Your task to perform on an android device: Add logitech g933 to the cart on newegg.com Image 0: 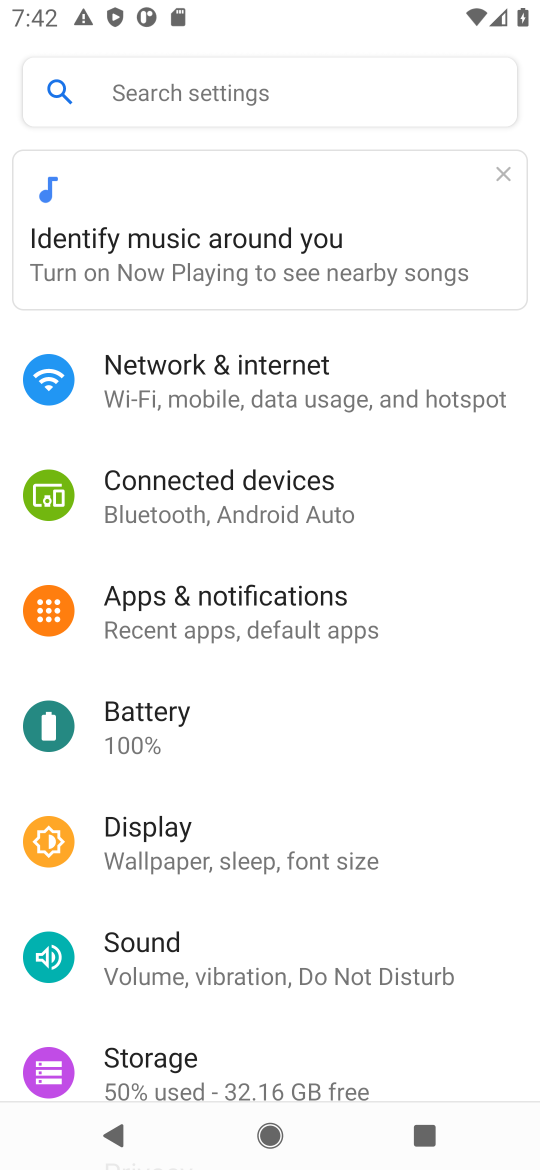
Step 0: press home button
Your task to perform on an android device: Add logitech g933 to the cart on newegg.com Image 1: 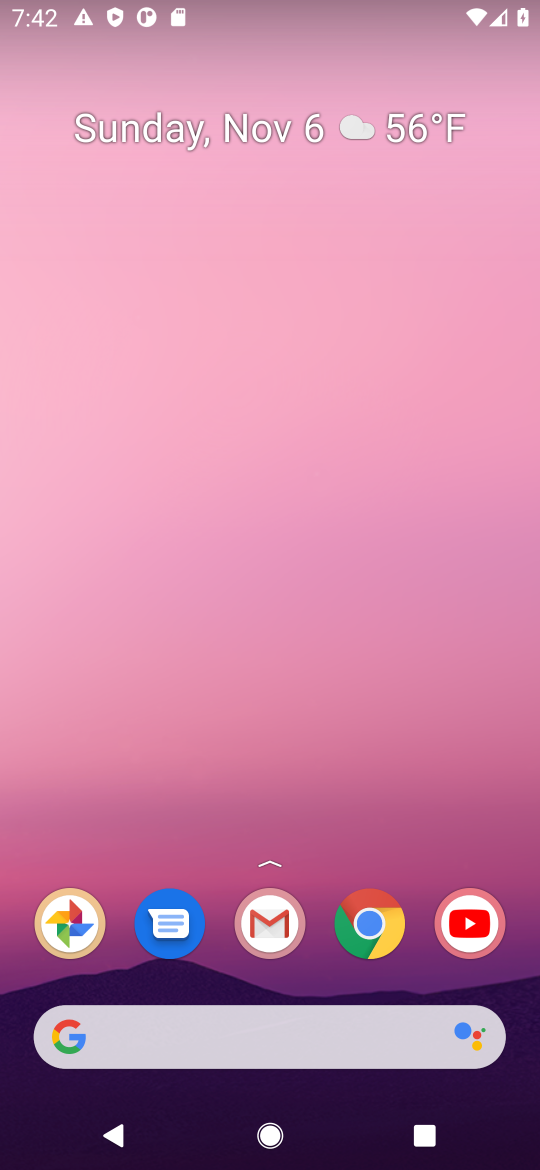
Step 1: click (372, 922)
Your task to perform on an android device: Add logitech g933 to the cart on newegg.com Image 2: 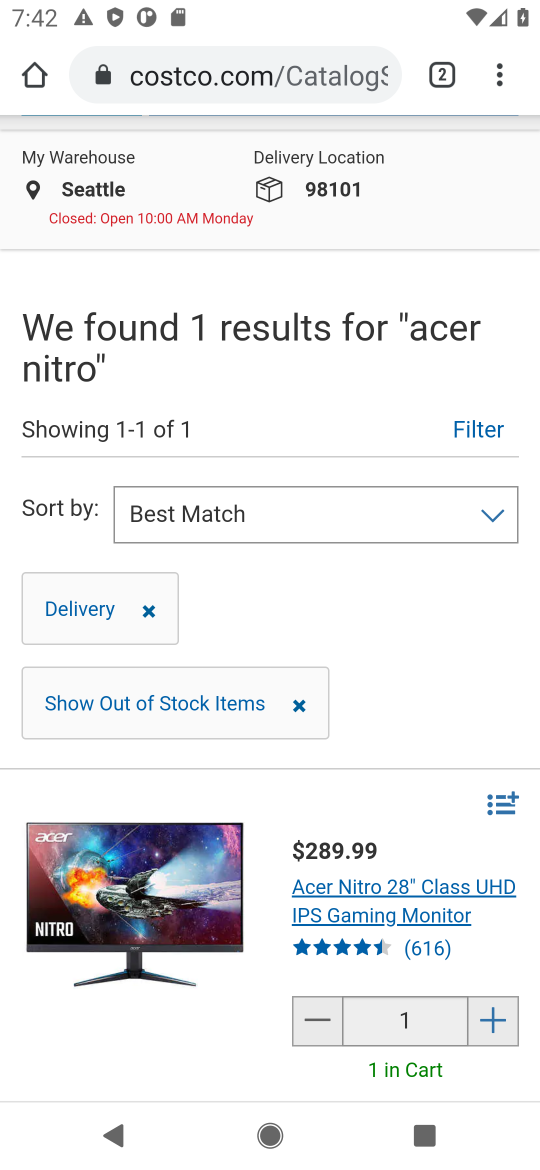
Step 2: click (205, 74)
Your task to perform on an android device: Add logitech g933 to the cart on newegg.com Image 3: 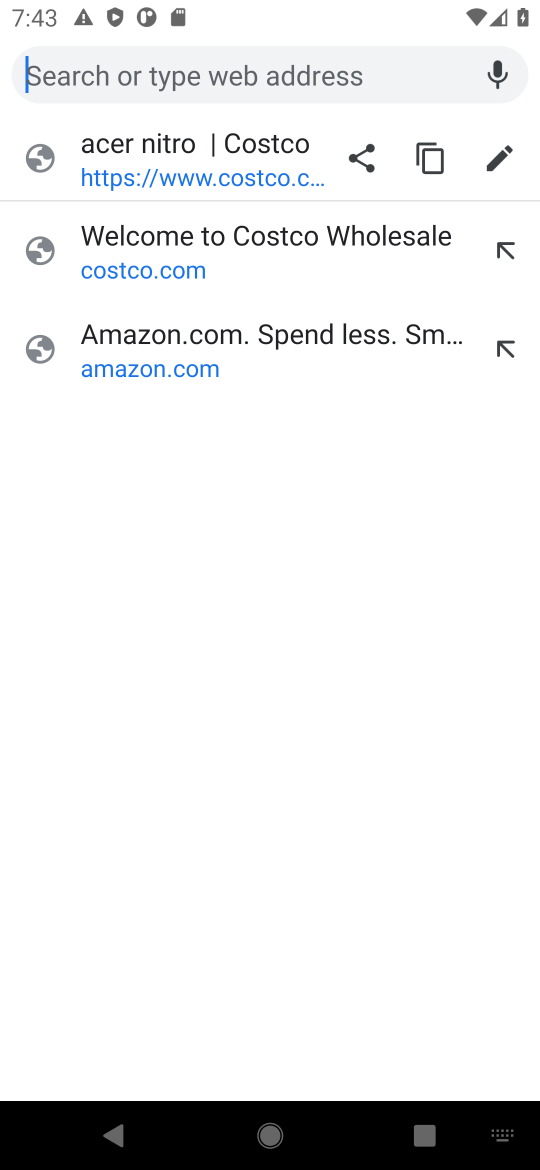
Step 3: type "newegg.com"
Your task to perform on an android device: Add logitech g933 to the cart on newegg.com Image 4: 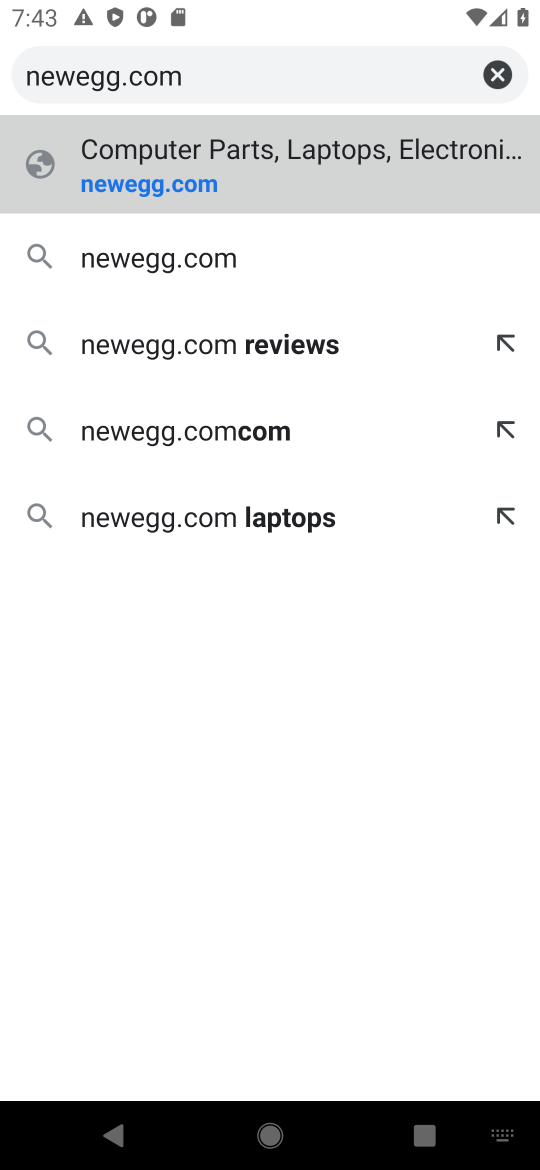
Step 4: click (162, 192)
Your task to perform on an android device: Add logitech g933 to the cart on newegg.com Image 5: 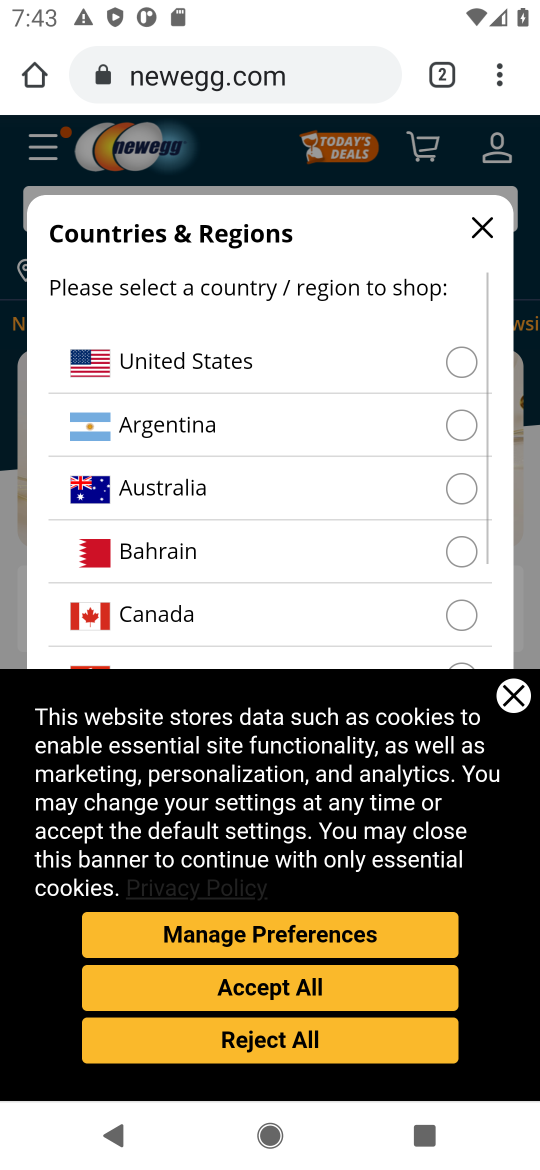
Step 5: click (442, 366)
Your task to perform on an android device: Add logitech g933 to the cart on newegg.com Image 6: 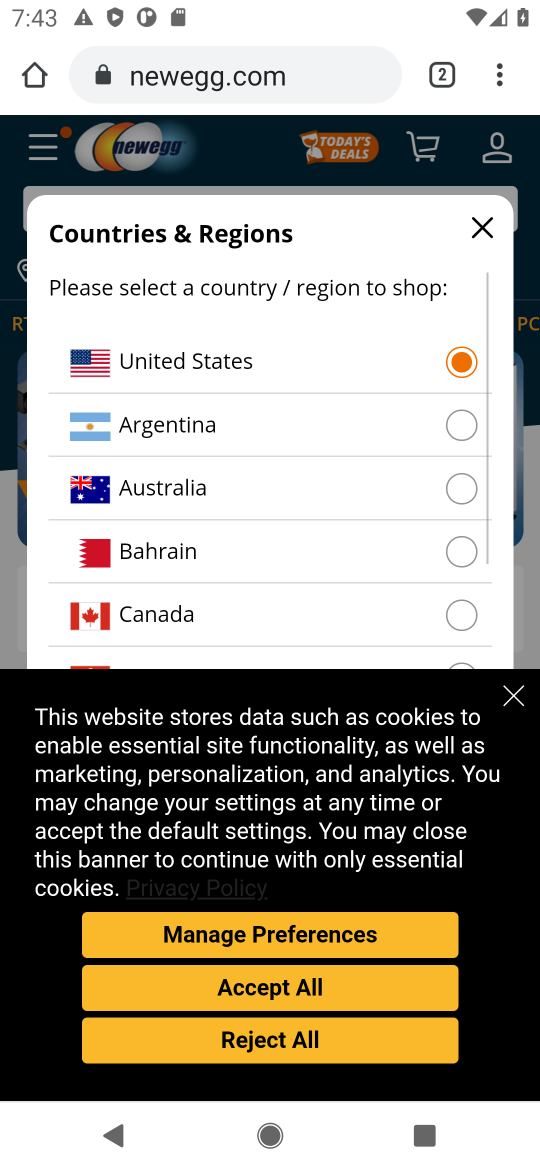
Step 6: click (479, 233)
Your task to perform on an android device: Add logitech g933 to the cart on newegg.com Image 7: 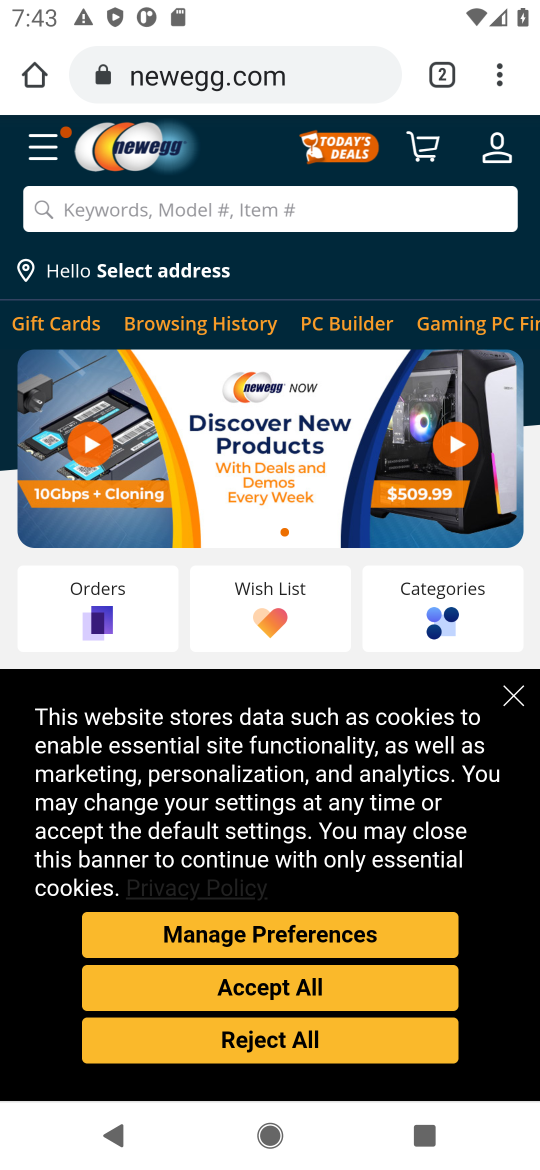
Step 7: click (151, 208)
Your task to perform on an android device: Add logitech g933 to the cart on newegg.com Image 8: 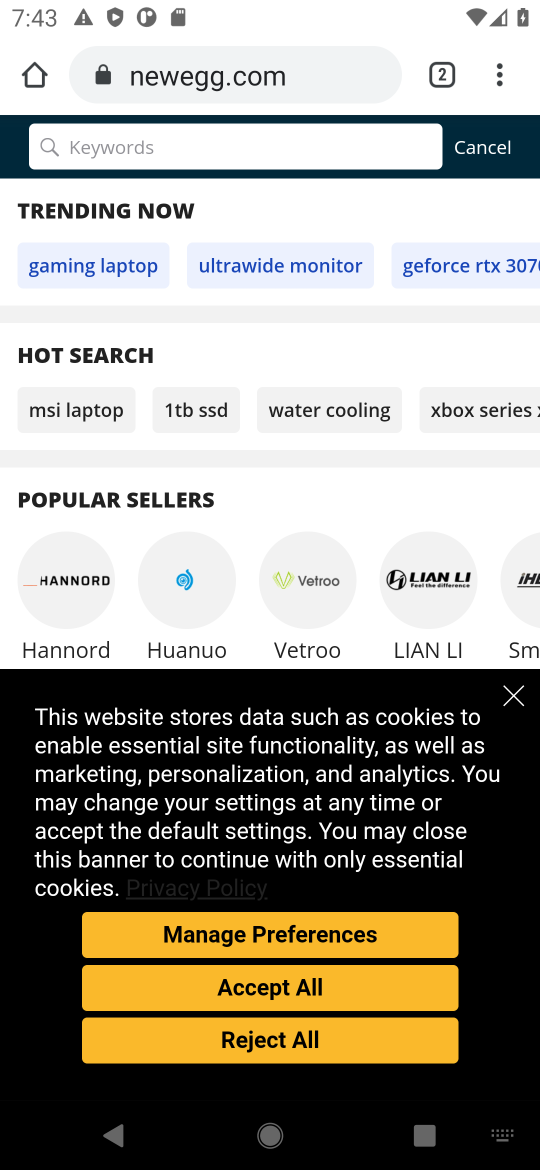
Step 8: type "logitech g933 "
Your task to perform on an android device: Add logitech g933 to the cart on newegg.com Image 9: 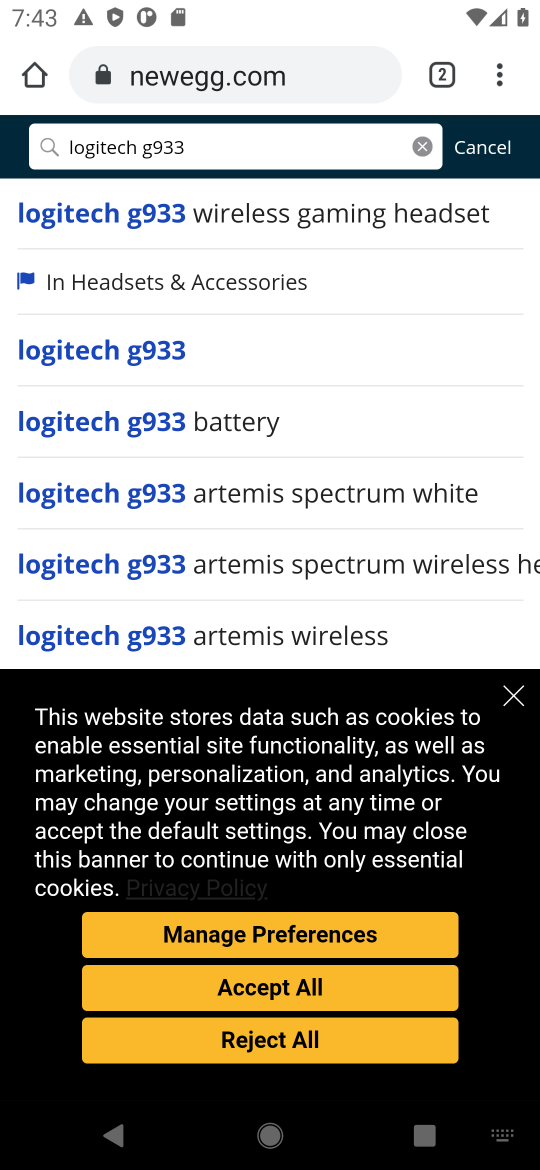
Step 9: click (143, 363)
Your task to perform on an android device: Add logitech g933 to the cart on newegg.com Image 10: 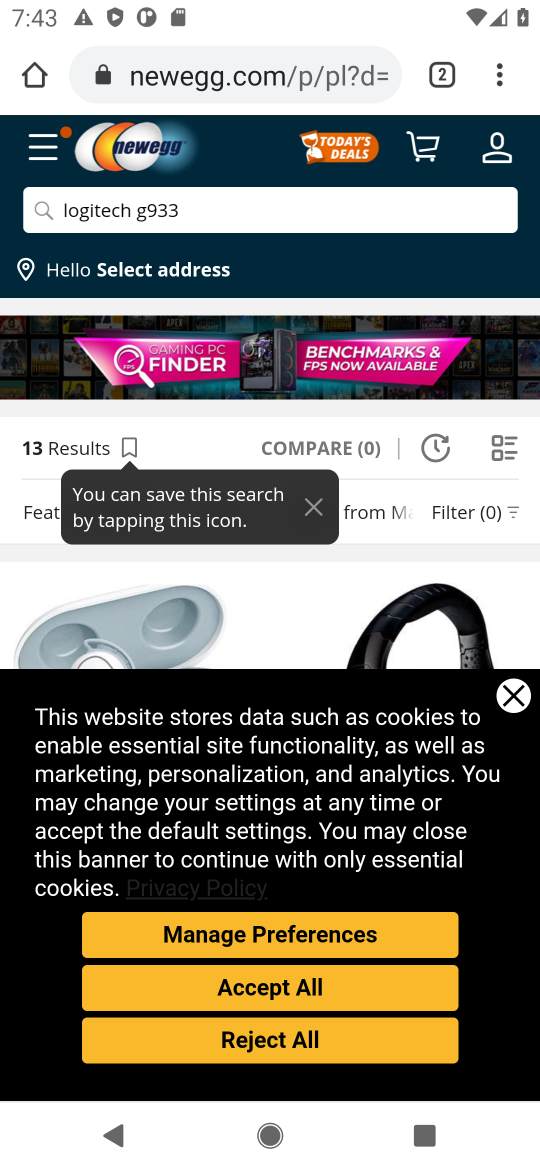
Step 10: click (515, 695)
Your task to perform on an android device: Add logitech g933 to the cart on newegg.com Image 11: 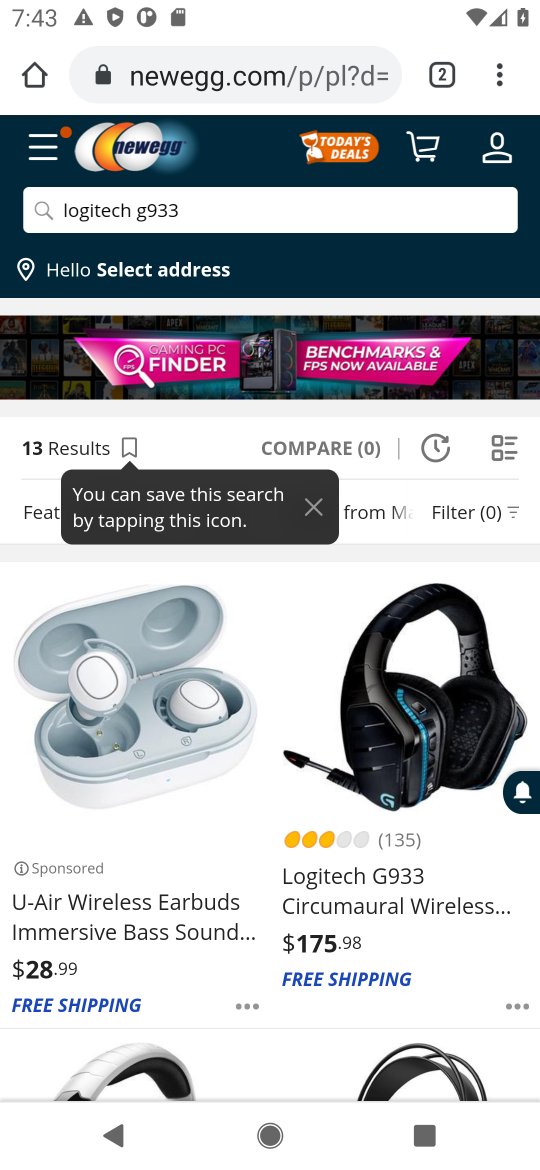
Step 11: click (423, 769)
Your task to perform on an android device: Add logitech g933 to the cart on newegg.com Image 12: 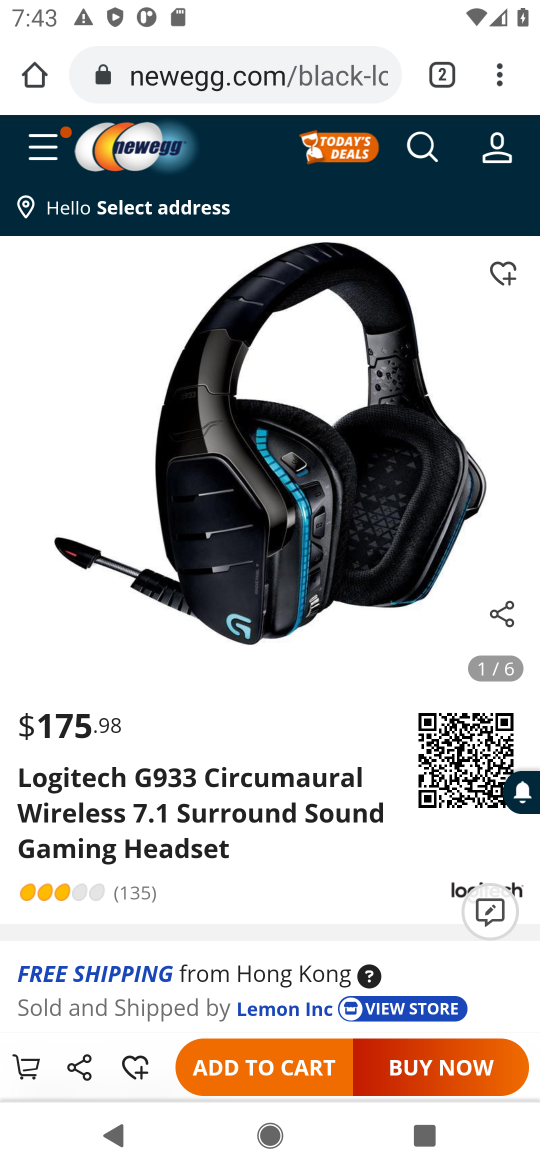
Step 12: click (268, 1074)
Your task to perform on an android device: Add logitech g933 to the cart on newegg.com Image 13: 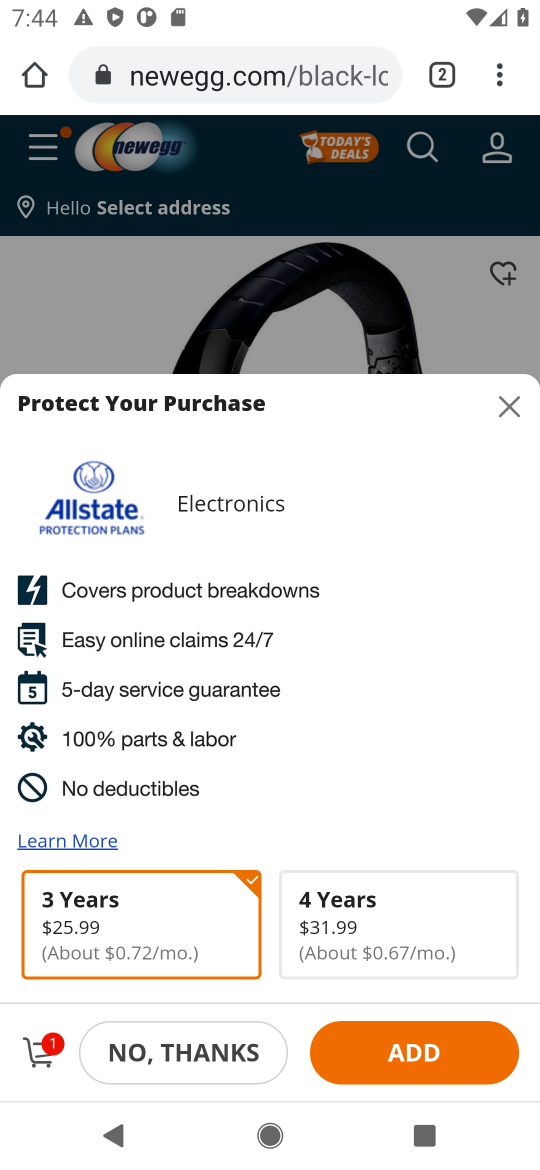
Step 13: task complete